Your task to perform on an android device: change the upload size in google photos Image 0: 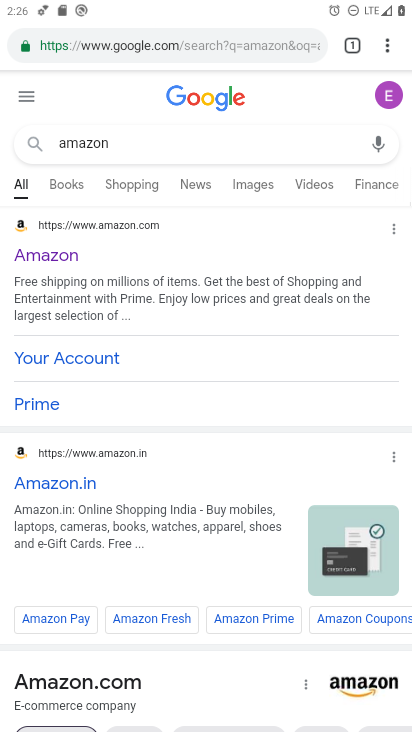
Step 0: press home button
Your task to perform on an android device: change the upload size in google photos Image 1: 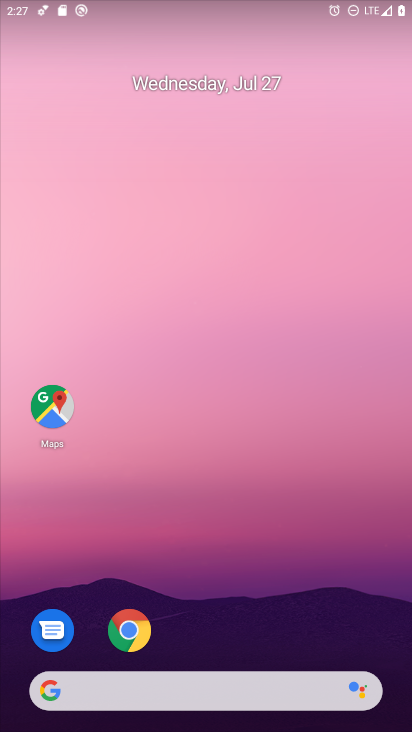
Step 1: drag from (381, 650) to (345, 86)
Your task to perform on an android device: change the upload size in google photos Image 2: 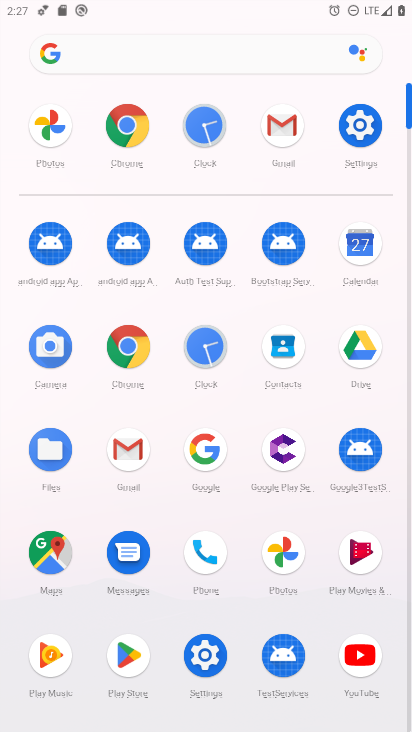
Step 2: click (281, 553)
Your task to perform on an android device: change the upload size in google photos Image 3: 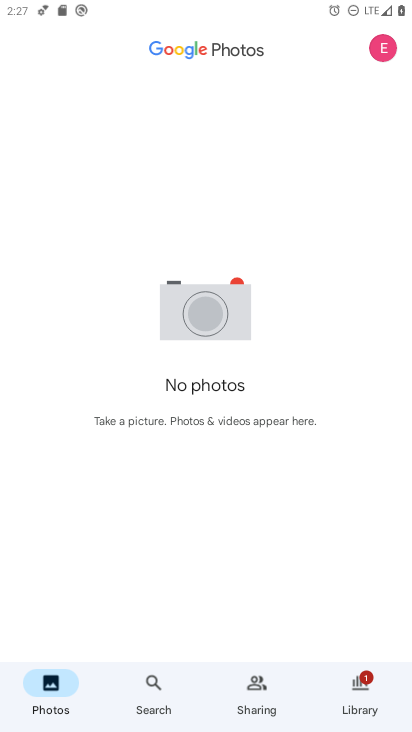
Step 3: click (383, 49)
Your task to perform on an android device: change the upload size in google photos Image 4: 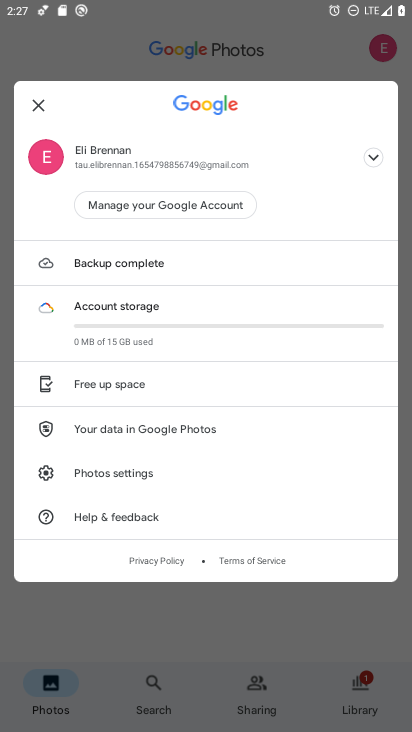
Step 4: click (90, 471)
Your task to perform on an android device: change the upload size in google photos Image 5: 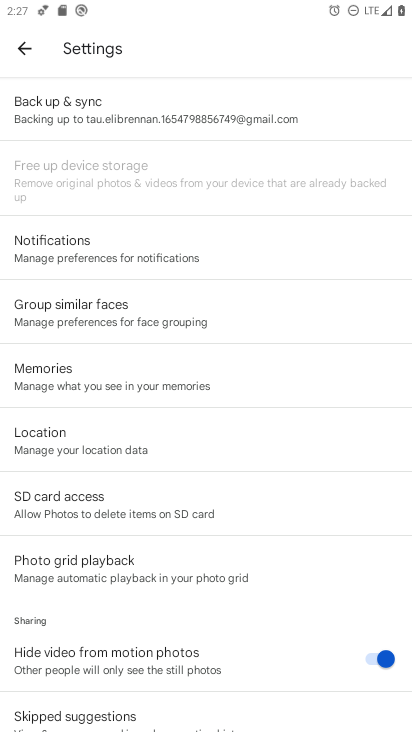
Step 5: click (96, 107)
Your task to perform on an android device: change the upload size in google photos Image 6: 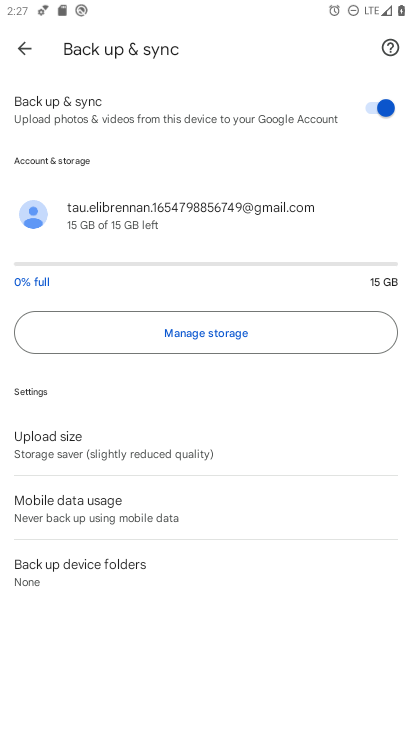
Step 6: click (67, 435)
Your task to perform on an android device: change the upload size in google photos Image 7: 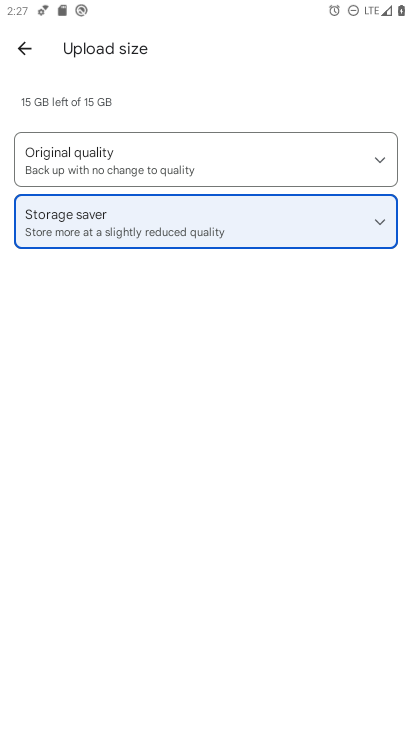
Step 7: click (102, 157)
Your task to perform on an android device: change the upload size in google photos Image 8: 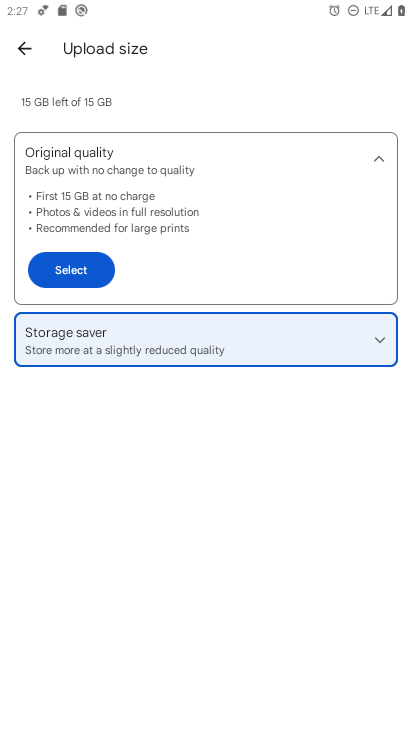
Step 8: click (70, 275)
Your task to perform on an android device: change the upload size in google photos Image 9: 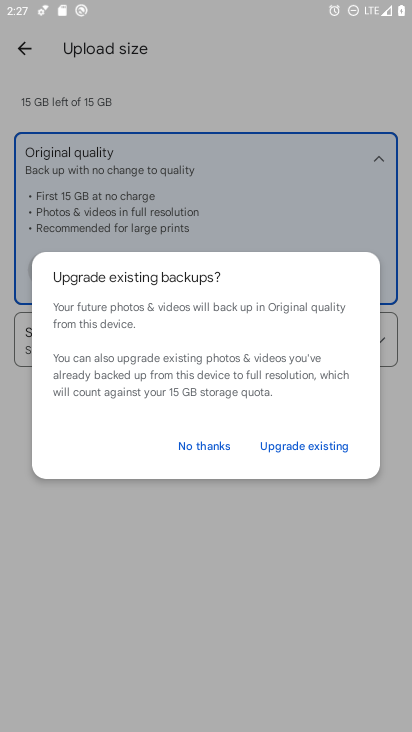
Step 9: click (288, 447)
Your task to perform on an android device: change the upload size in google photos Image 10: 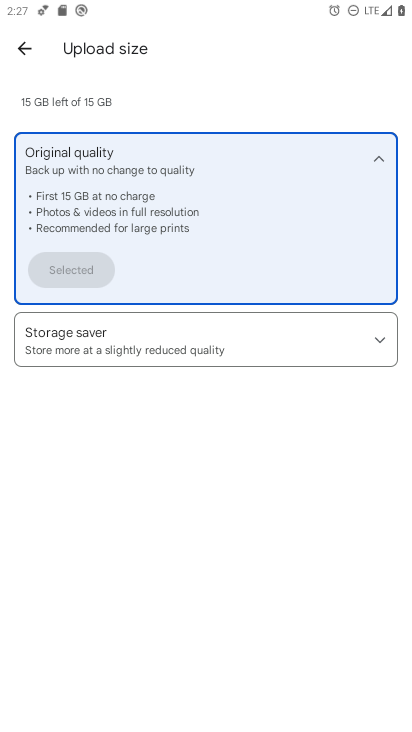
Step 10: task complete